Your task to perform on an android device: delete location history Image 0: 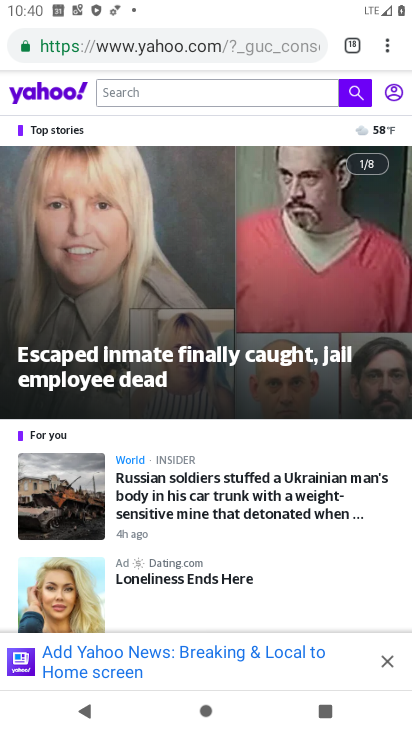
Step 0: press home button
Your task to perform on an android device: delete location history Image 1: 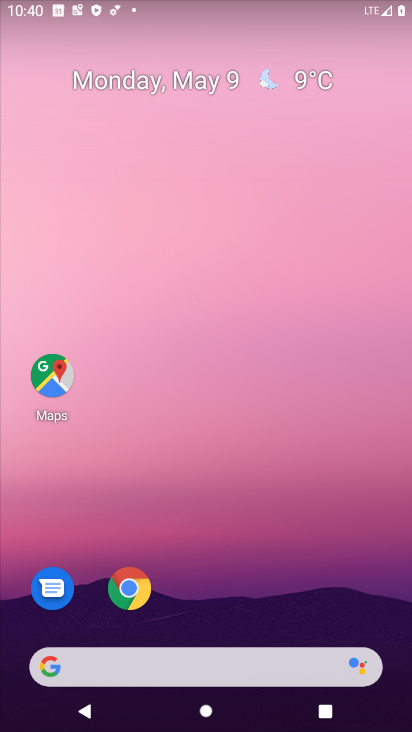
Step 1: drag from (153, 670) to (293, 41)
Your task to perform on an android device: delete location history Image 2: 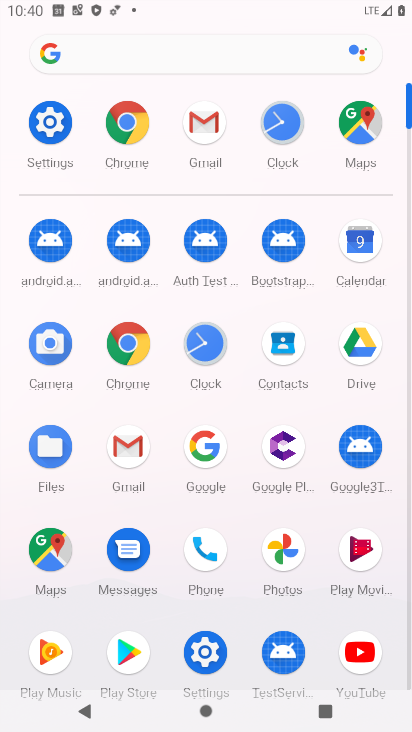
Step 2: click (352, 136)
Your task to perform on an android device: delete location history Image 3: 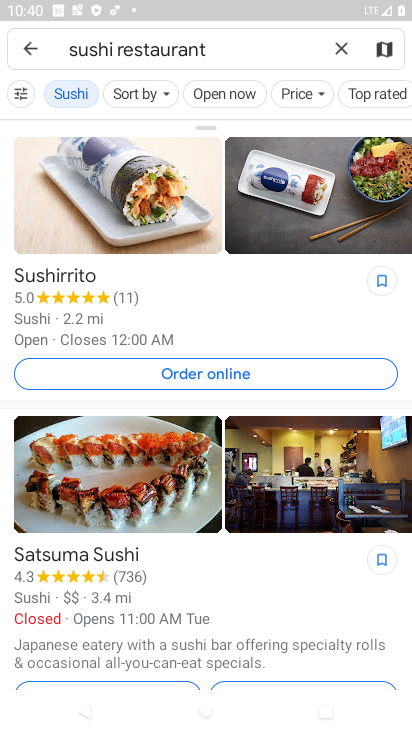
Step 3: click (31, 46)
Your task to perform on an android device: delete location history Image 4: 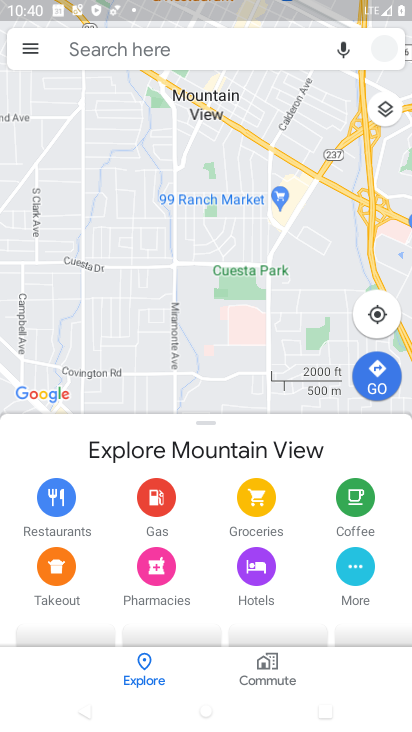
Step 4: click (30, 48)
Your task to perform on an android device: delete location history Image 5: 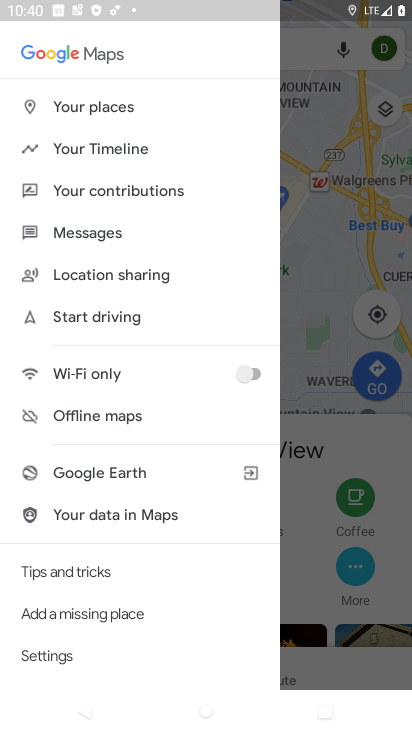
Step 5: click (112, 146)
Your task to perform on an android device: delete location history Image 6: 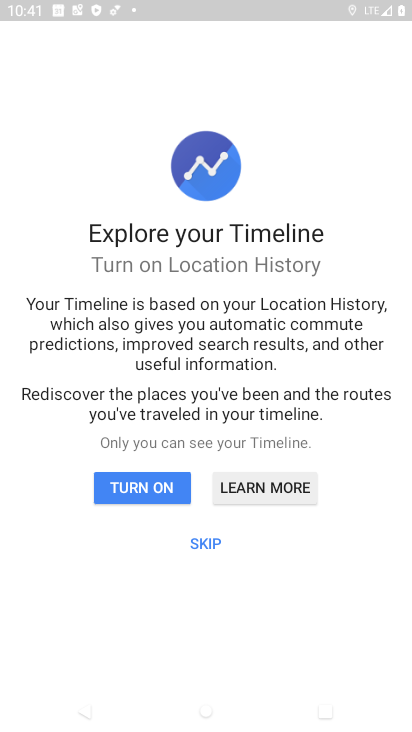
Step 6: click (208, 545)
Your task to perform on an android device: delete location history Image 7: 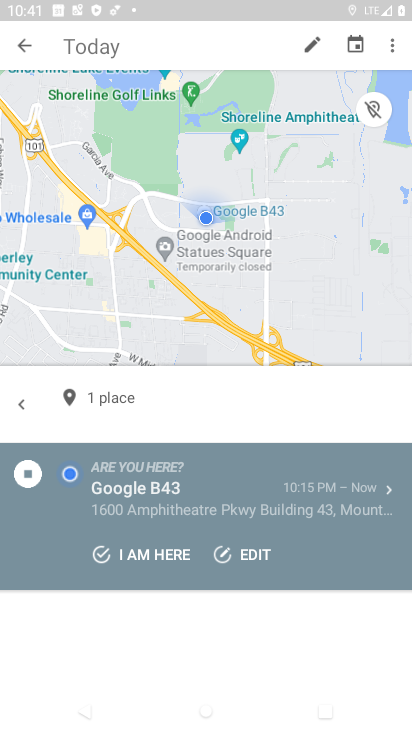
Step 7: click (392, 50)
Your task to perform on an android device: delete location history Image 8: 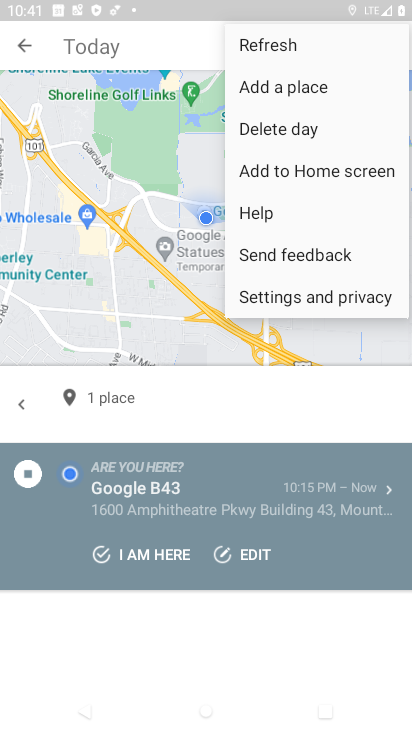
Step 8: click (293, 297)
Your task to perform on an android device: delete location history Image 9: 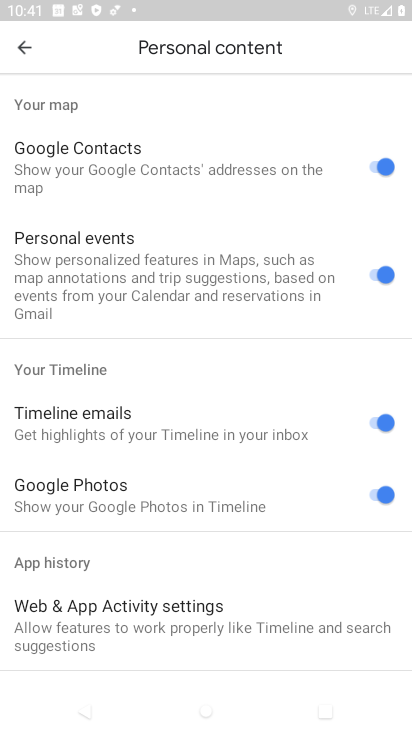
Step 9: drag from (131, 558) to (240, 112)
Your task to perform on an android device: delete location history Image 10: 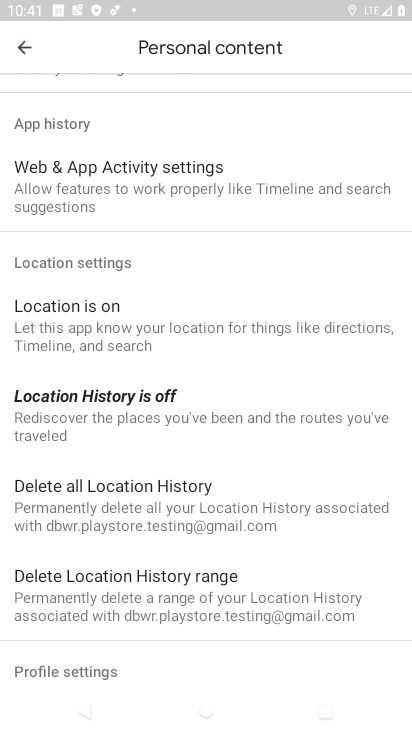
Step 10: click (131, 499)
Your task to perform on an android device: delete location history Image 11: 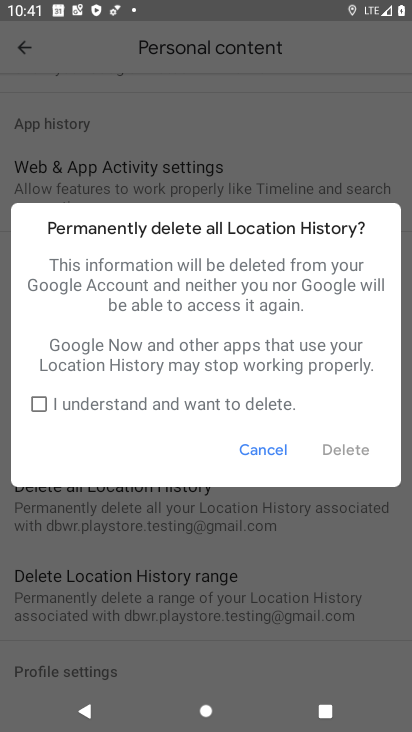
Step 11: click (31, 404)
Your task to perform on an android device: delete location history Image 12: 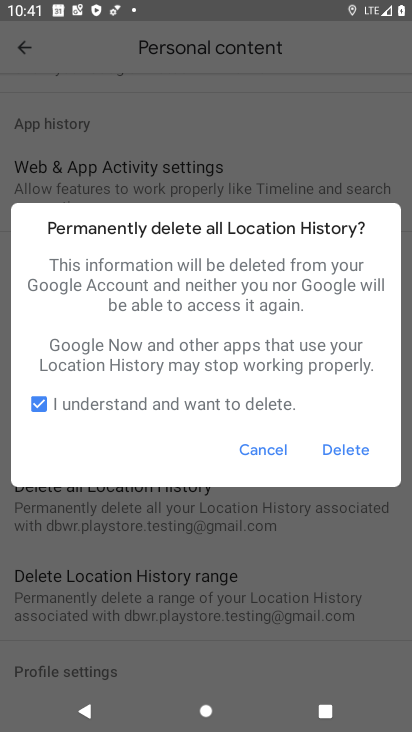
Step 12: click (347, 450)
Your task to perform on an android device: delete location history Image 13: 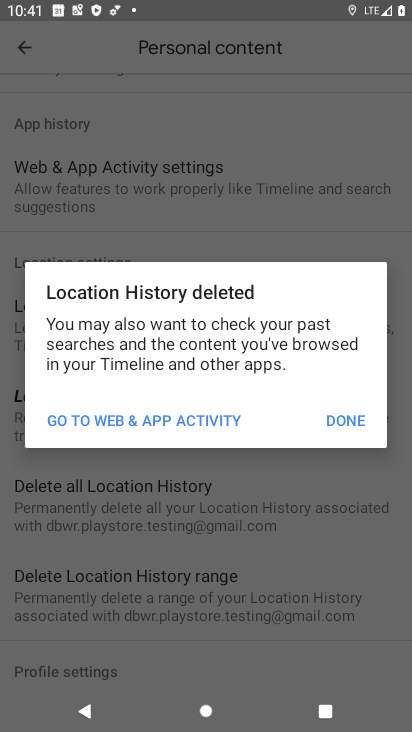
Step 13: click (342, 426)
Your task to perform on an android device: delete location history Image 14: 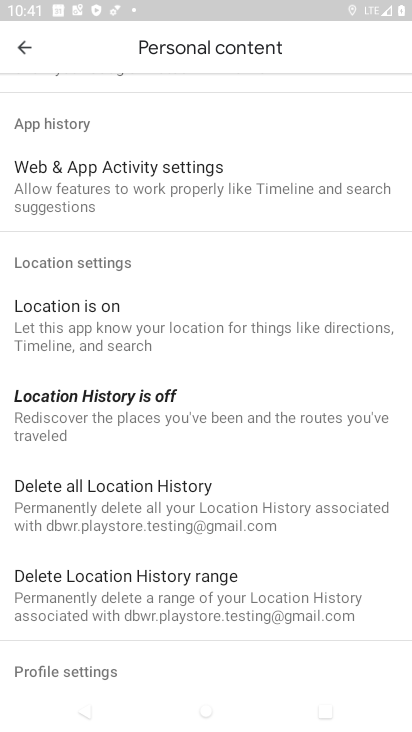
Step 14: task complete